Your task to perform on an android device: Go to settings Image 0: 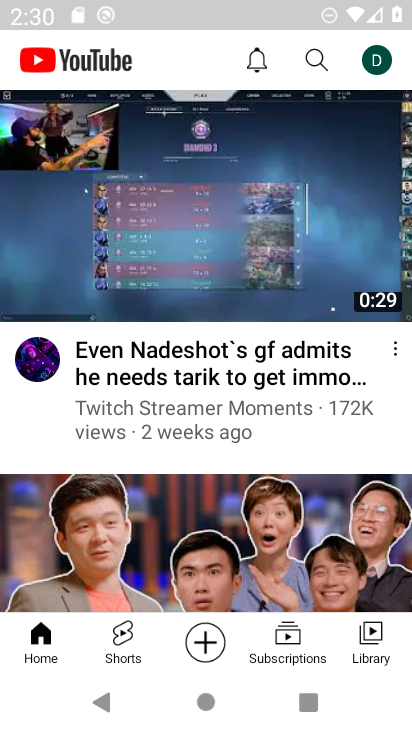
Step 0: press back button
Your task to perform on an android device: Go to settings Image 1: 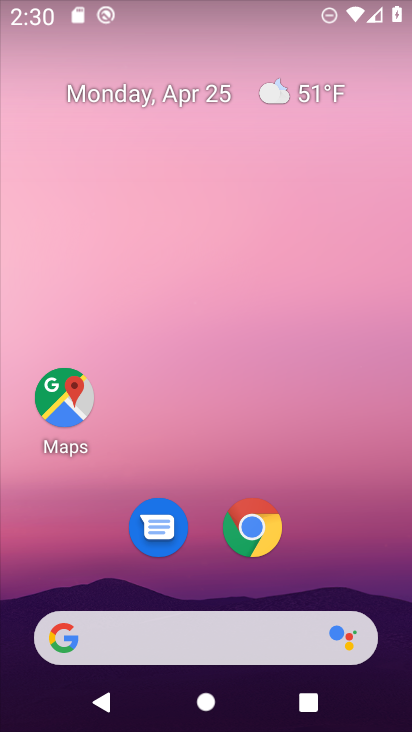
Step 1: drag from (361, 530) to (284, 62)
Your task to perform on an android device: Go to settings Image 2: 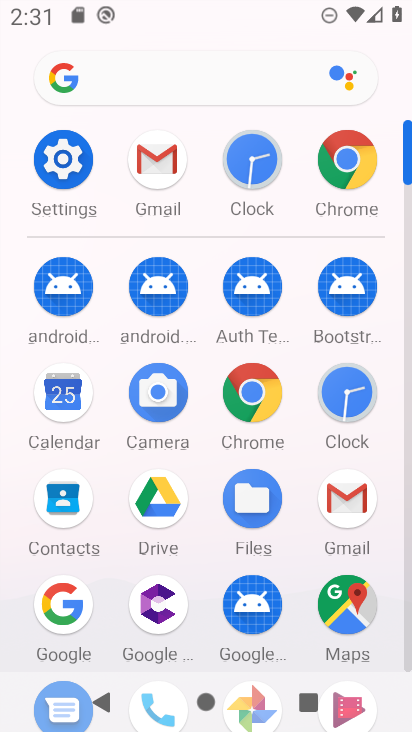
Step 2: click (59, 159)
Your task to perform on an android device: Go to settings Image 3: 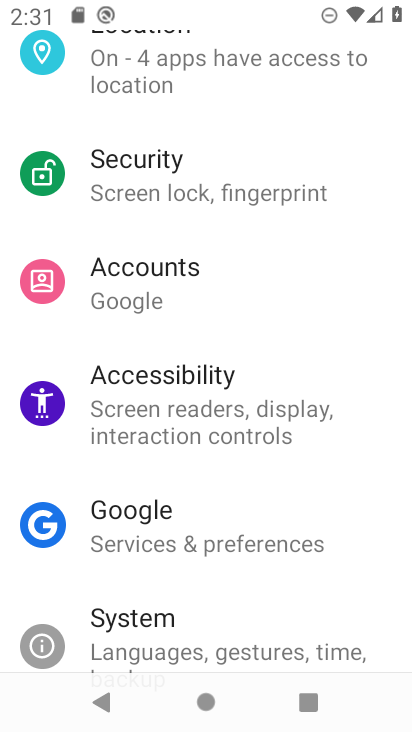
Step 3: task complete